Your task to perform on an android device: Go to Google maps Image 0: 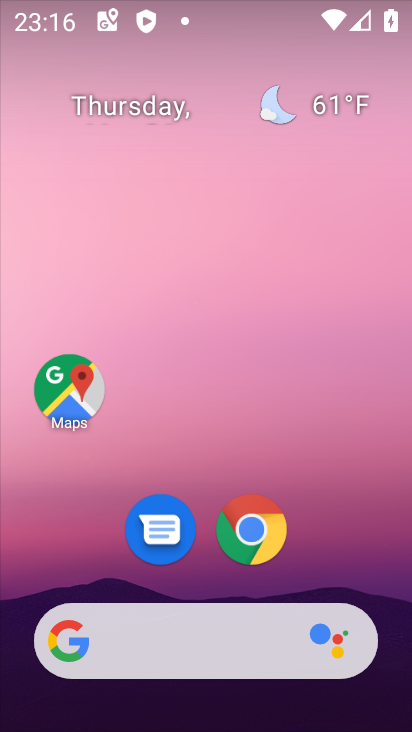
Step 0: click (64, 378)
Your task to perform on an android device: Go to Google maps Image 1: 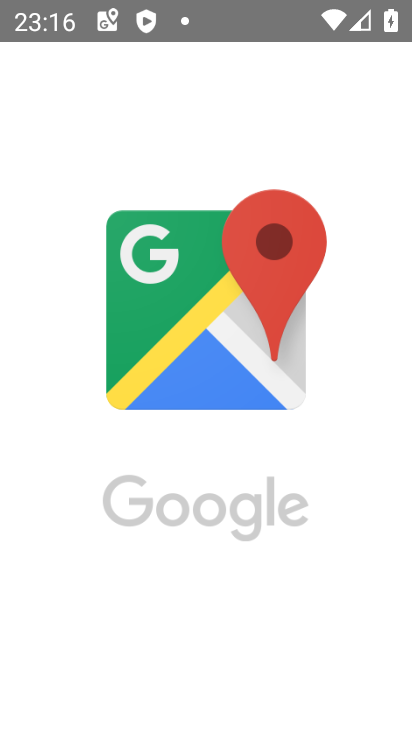
Step 1: task complete